Your task to perform on an android device: star an email in the gmail app Image 0: 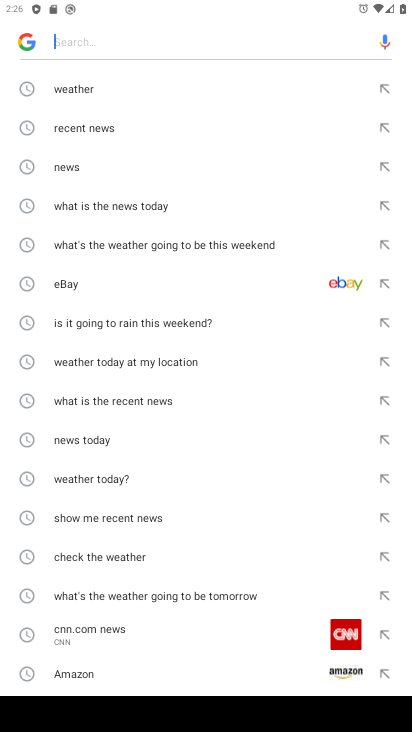
Step 0: press home button
Your task to perform on an android device: star an email in the gmail app Image 1: 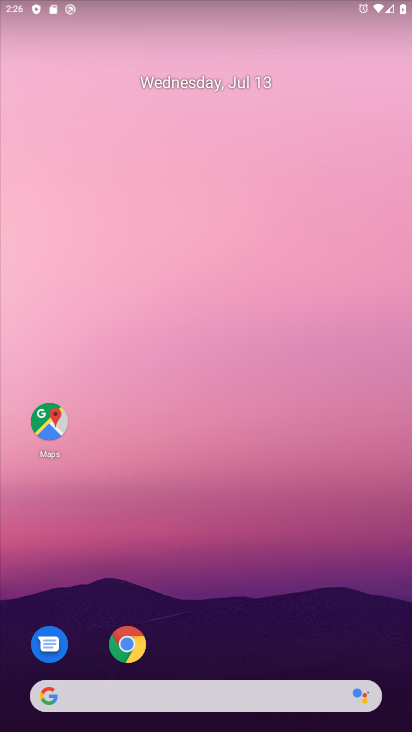
Step 1: drag from (179, 688) to (129, 275)
Your task to perform on an android device: star an email in the gmail app Image 2: 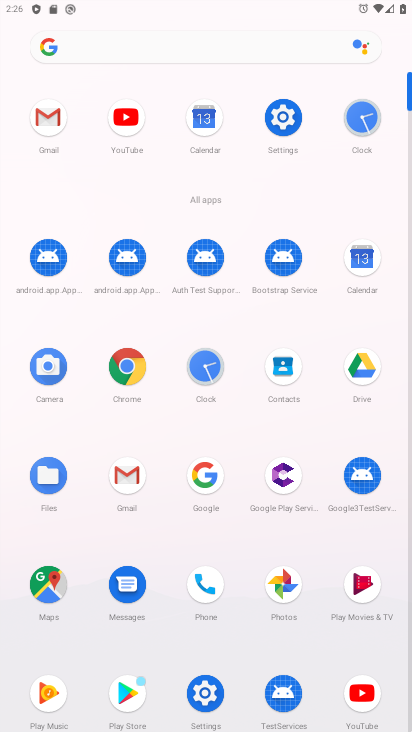
Step 2: click (52, 129)
Your task to perform on an android device: star an email in the gmail app Image 3: 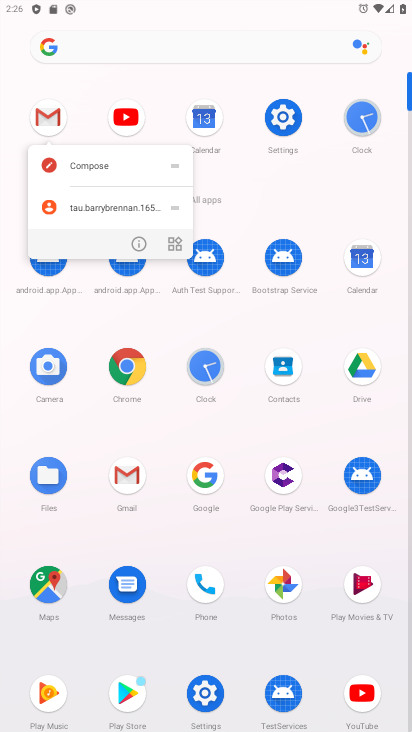
Step 3: click (52, 129)
Your task to perform on an android device: star an email in the gmail app Image 4: 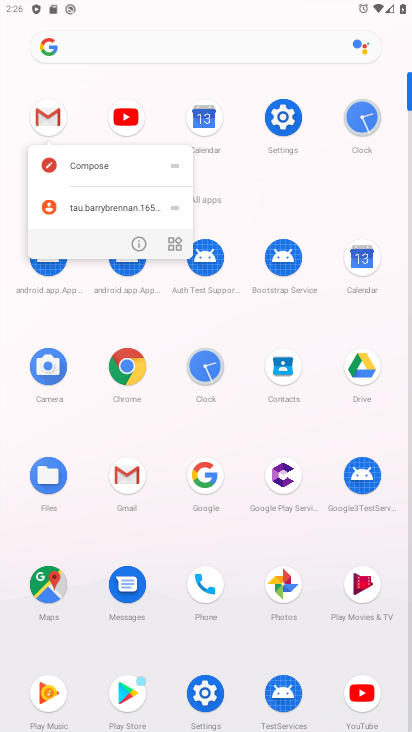
Step 4: click (52, 129)
Your task to perform on an android device: star an email in the gmail app Image 5: 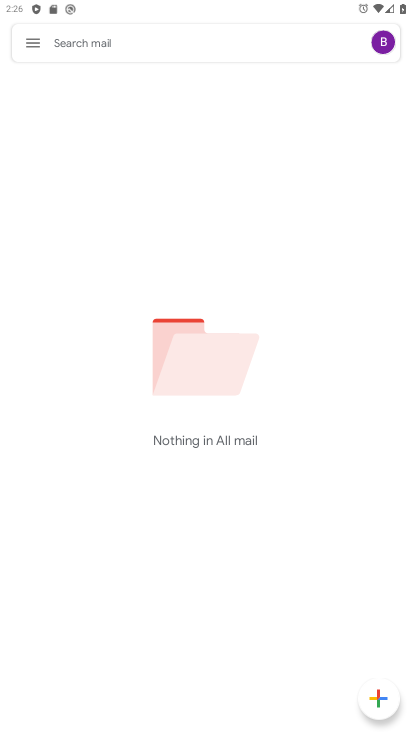
Step 5: click (30, 43)
Your task to perform on an android device: star an email in the gmail app Image 6: 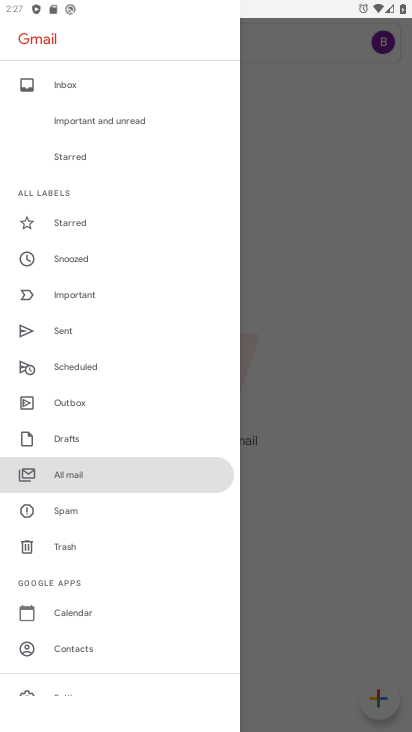
Step 6: click (334, 656)
Your task to perform on an android device: star an email in the gmail app Image 7: 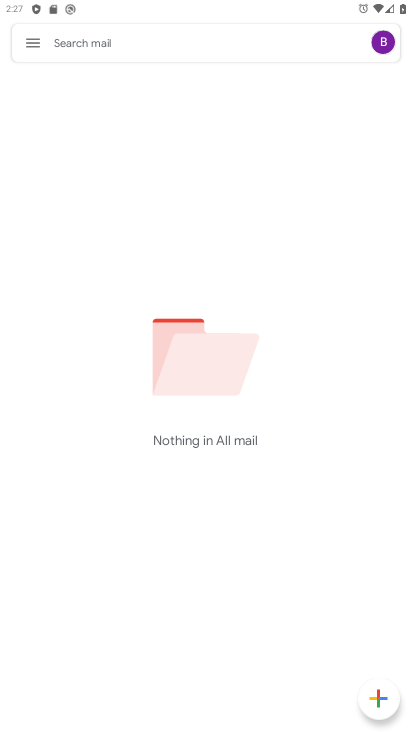
Step 7: click (334, 656)
Your task to perform on an android device: star an email in the gmail app Image 8: 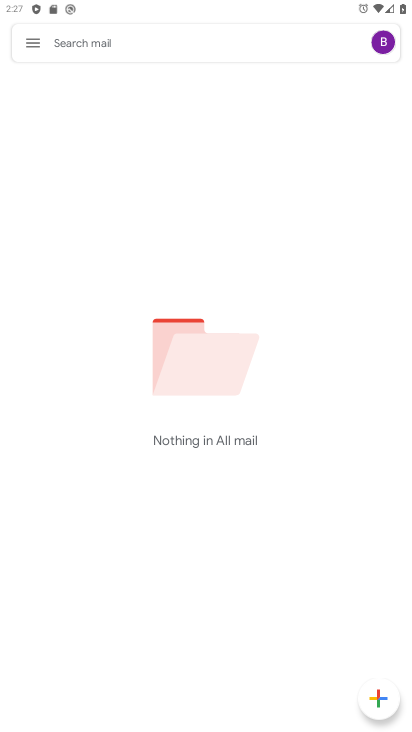
Step 8: task complete